Your task to perform on an android device: Open Google Maps Image 0: 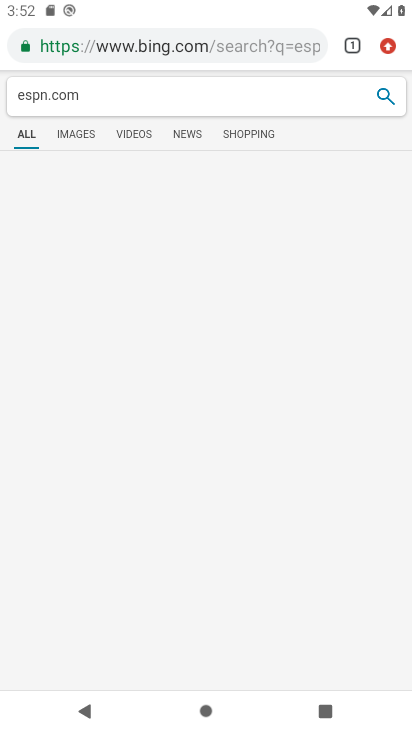
Step 0: press home button
Your task to perform on an android device: Open Google Maps Image 1: 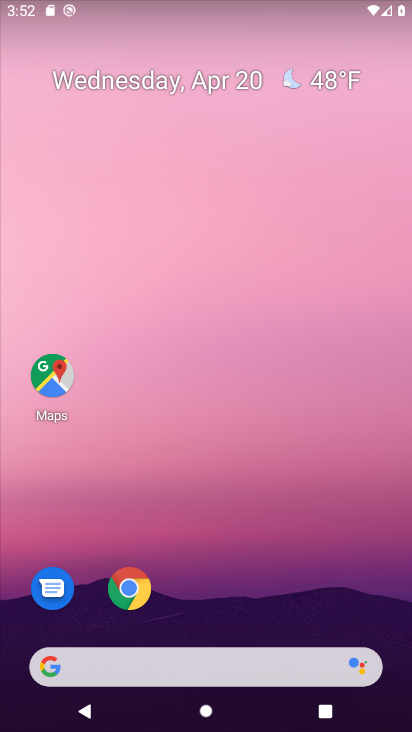
Step 1: drag from (316, 565) to (363, 158)
Your task to perform on an android device: Open Google Maps Image 2: 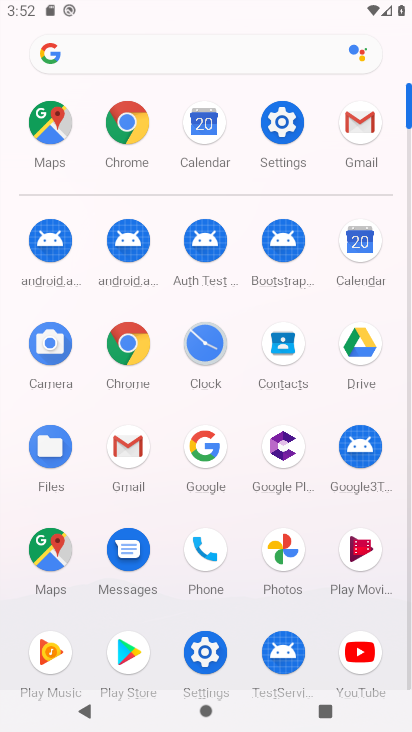
Step 2: click (37, 535)
Your task to perform on an android device: Open Google Maps Image 3: 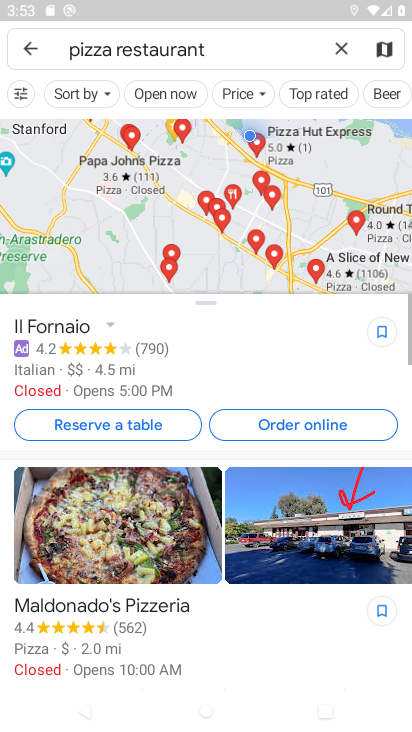
Step 3: task complete